Your task to perform on an android device: Open ESPN.com Image 0: 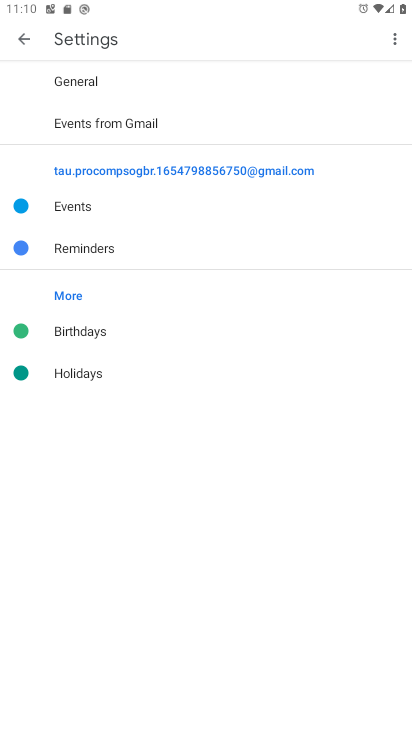
Step 0: press home button
Your task to perform on an android device: Open ESPN.com Image 1: 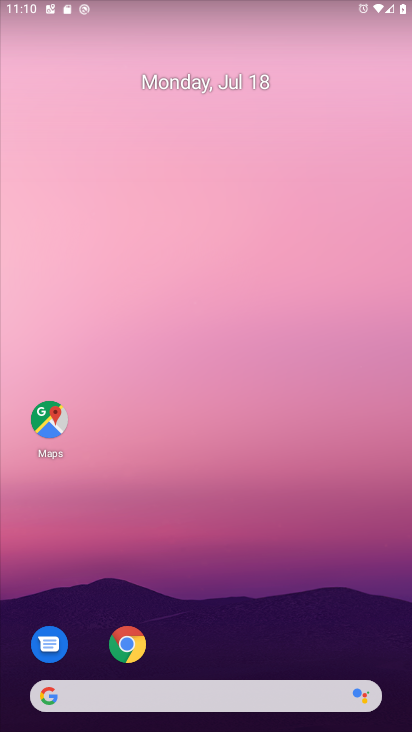
Step 1: drag from (226, 654) to (260, 92)
Your task to perform on an android device: Open ESPN.com Image 2: 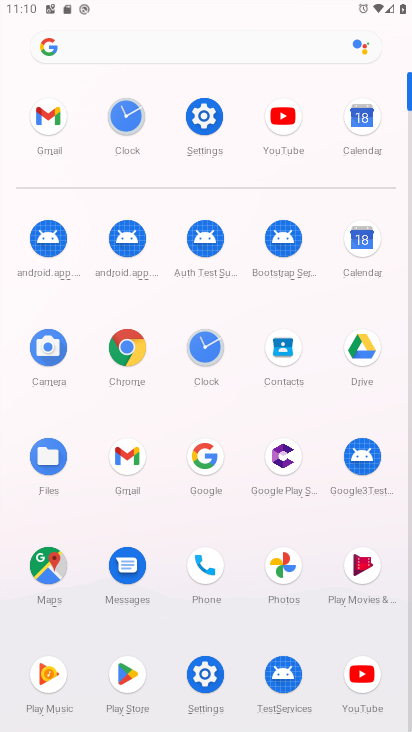
Step 2: click (134, 371)
Your task to perform on an android device: Open ESPN.com Image 3: 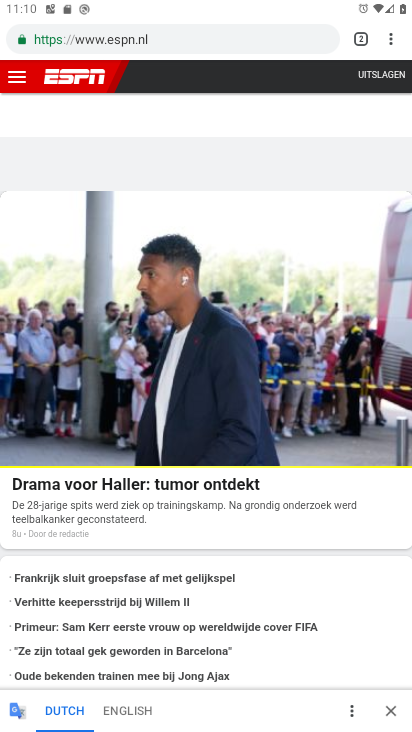
Step 3: task complete